Your task to perform on an android device: Go to Maps Image 0: 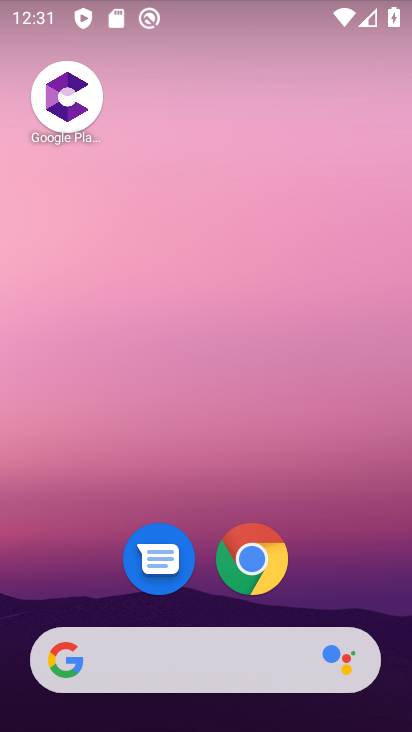
Step 0: drag from (382, 548) to (313, 7)
Your task to perform on an android device: Go to Maps Image 1: 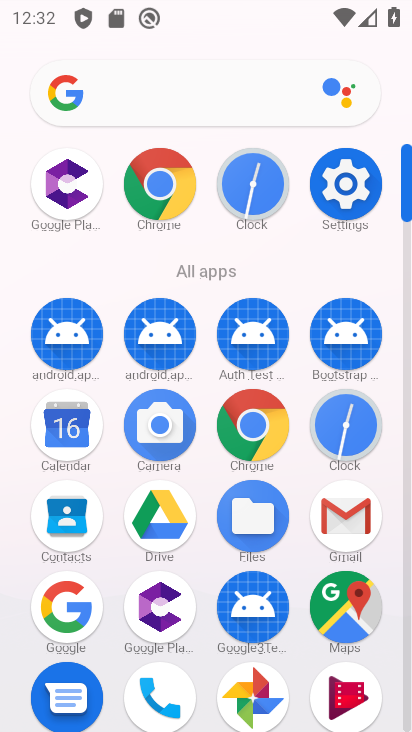
Step 1: click (355, 613)
Your task to perform on an android device: Go to Maps Image 2: 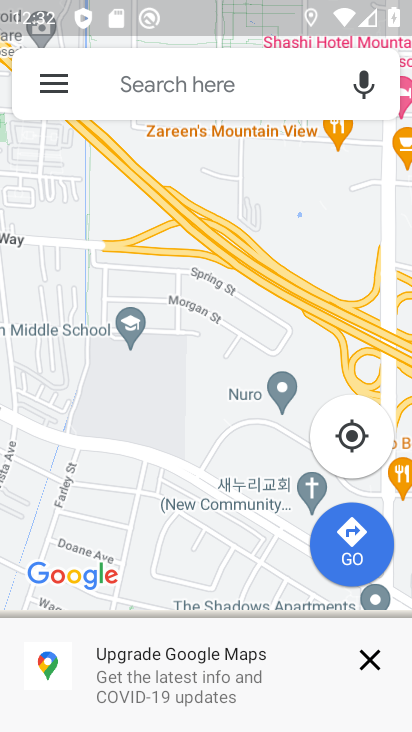
Step 2: click (192, 69)
Your task to perform on an android device: Go to Maps Image 3: 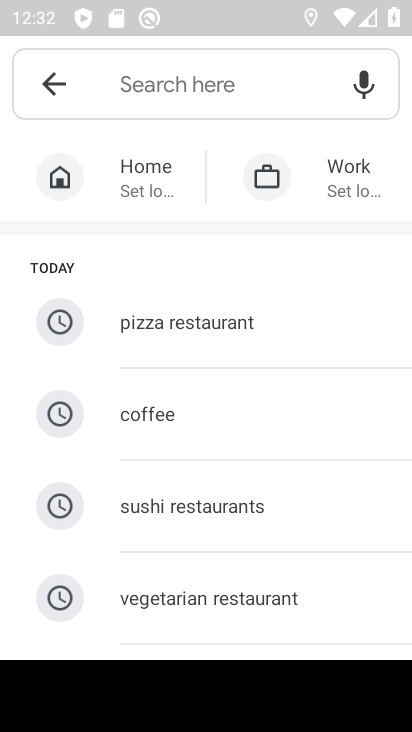
Step 3: task complete